Your task to perform on an android device: delete the emails in spam in the gmail app Image 0: 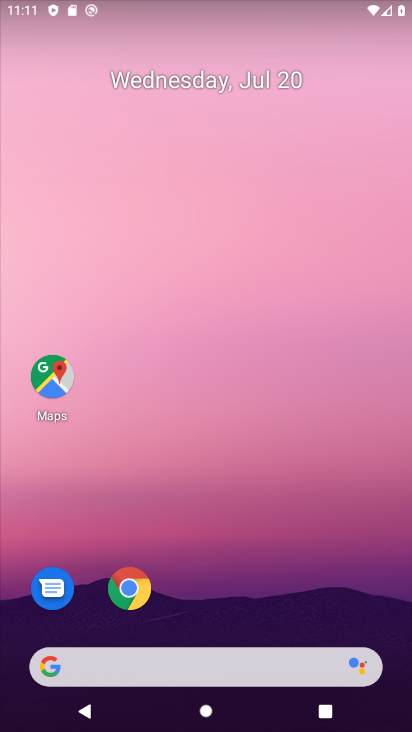
Step 0: press home button
Your task to perform on an android device: delete the emails in spam in the gmail app Image 1: 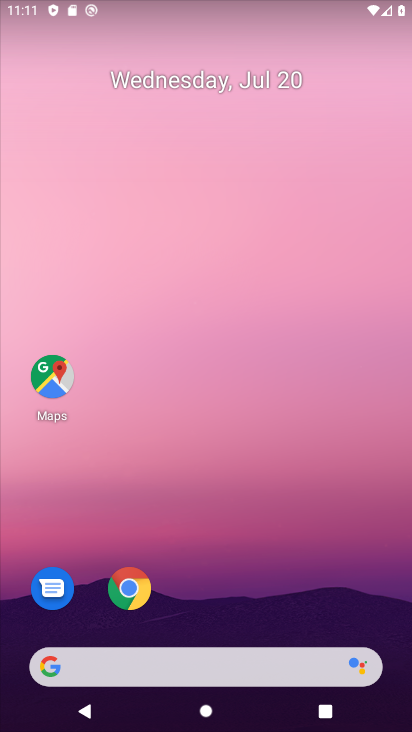
Step 1: drag from (337, 590) to (269, 66)
Your task to perform on an android device: delete the emails in spam in the gmail app Image 2: 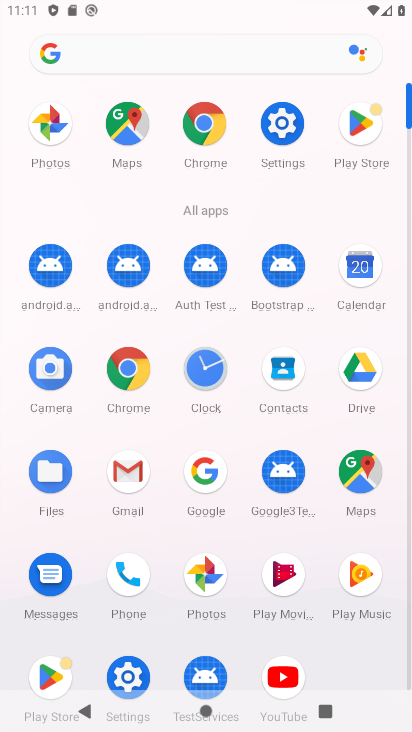
Step 2: click (121, 464)
Your task to perform on an android device: delete the emails in spam in the gmail app Image 3: 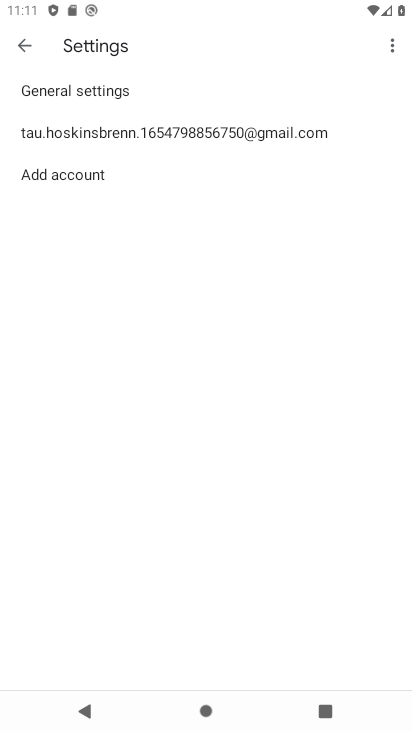
Step 3: click (78, 134)
Your task to perform on an android device: delete the emails in spam in the gmail app Image 4: 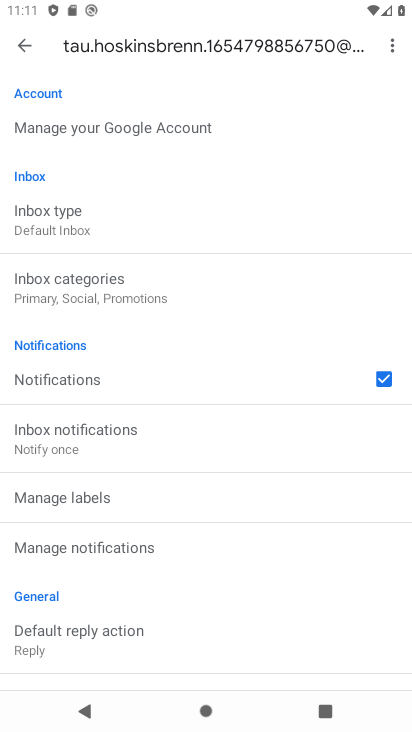
Step 4: click (21, 44)
Your task to perform on an android device: delete the emails in spam in the gmail app Image 5: 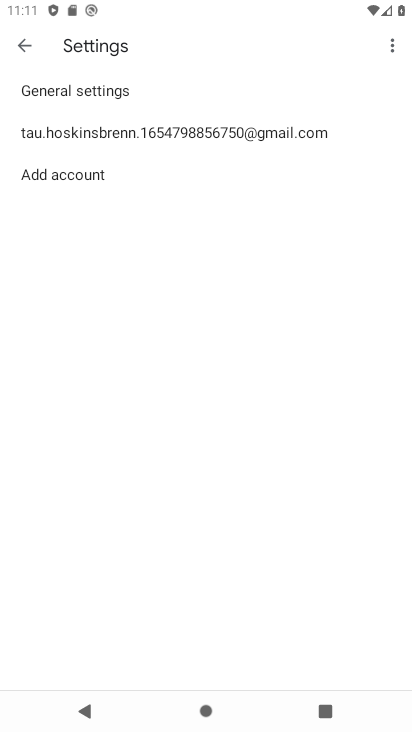
Step 5: click (21, 44)
Your task to perform on an android device: delete the emails in spam in the gmail app Image 6: 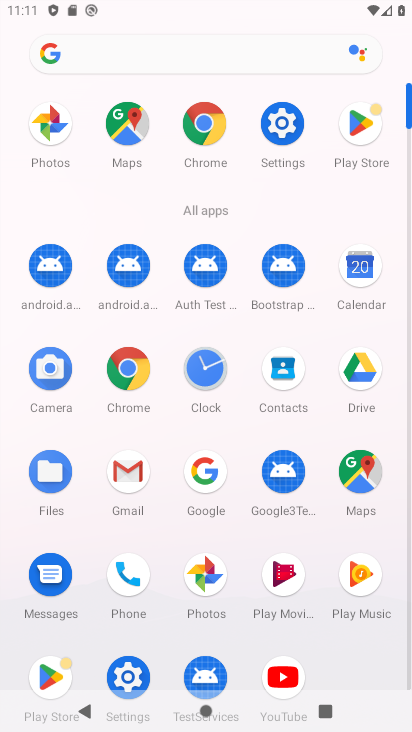
Step 6: click (135, 479)
Your task to perform on an android device: delete the emails in spam in the gmail app Image 7: 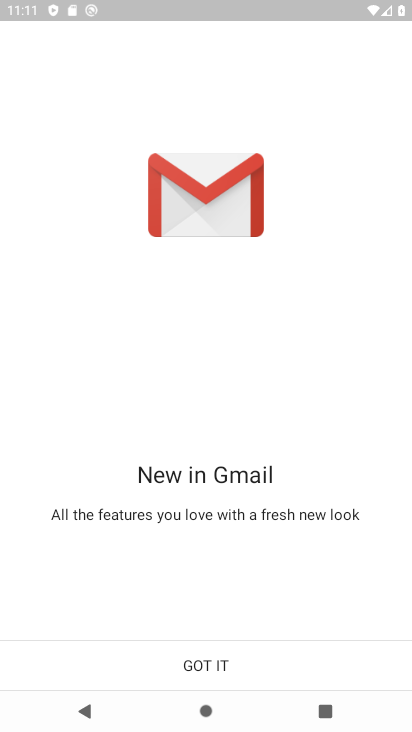
Step 7: click (211, 665)
Your task to perform on an android device: delete the emails in spam in the gmail app Image 8: 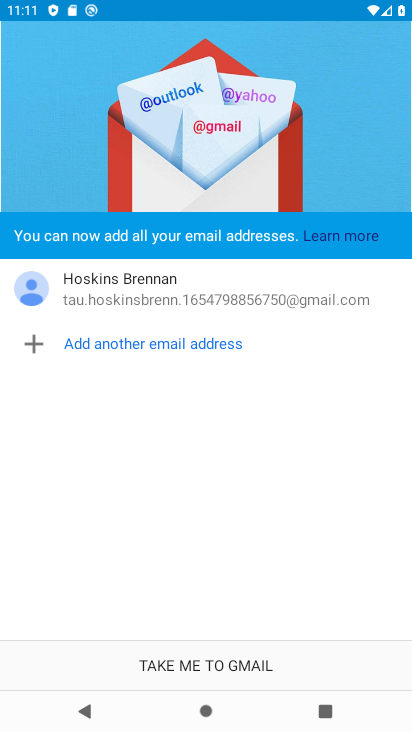
Step 8: click (209, 668)
Your task to perform on an android device: delete the emails in spam in the gmail app Image 9: 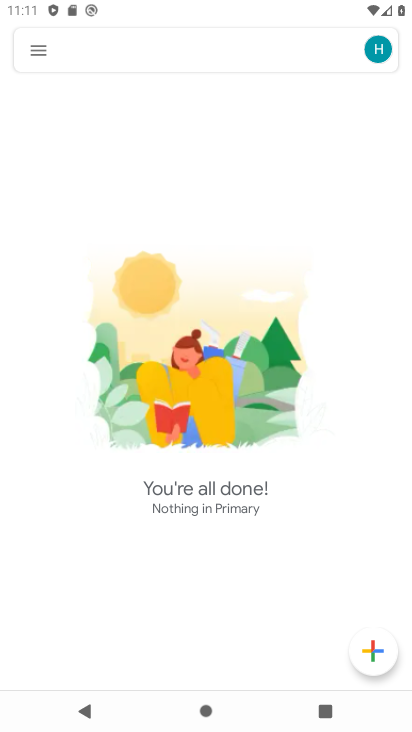
Step 9: click (35, 52)
Your task to perform on an android device: delete the emails in spam in the gmail app Image 10: 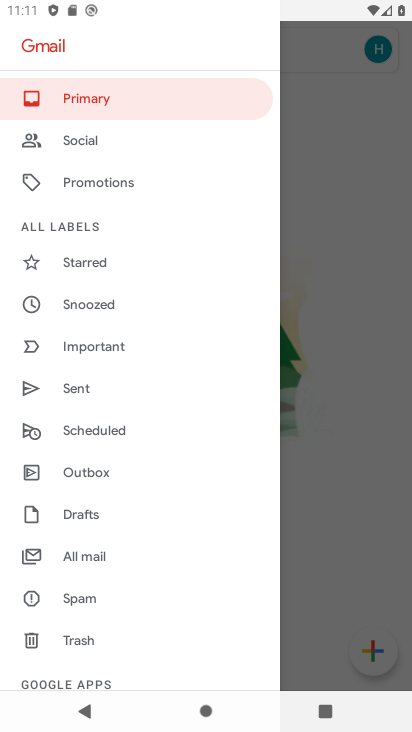
Step 10: click (96, 604)
Your task to perform on an android device: delete the emails in spam in the gmail app Image 11: 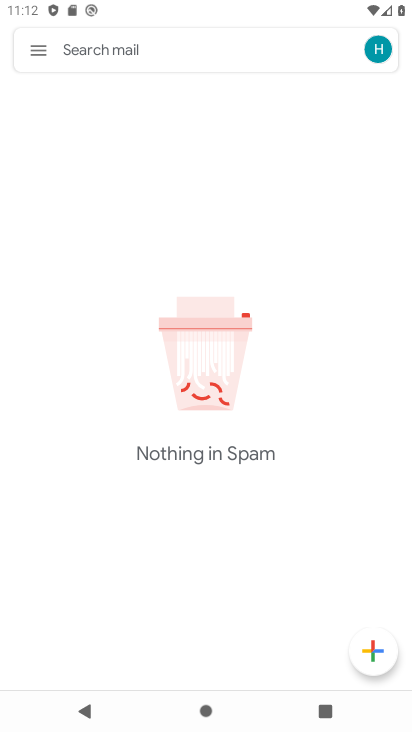
Step 11: task complete